Your task to perform on an android device: Search for Italian restaurants on Maps Image 0: 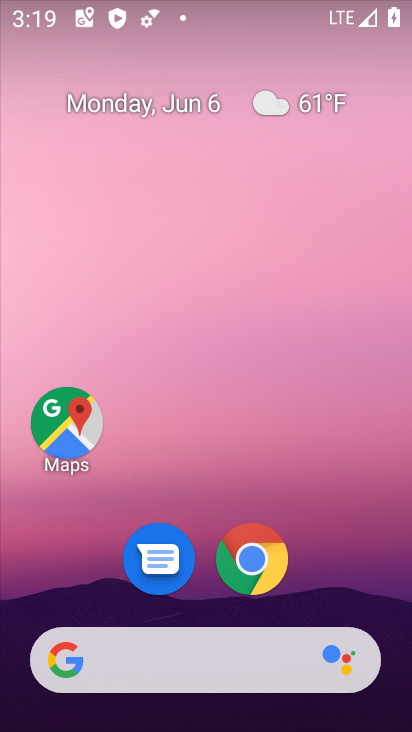
Step 0: click (52, 436)
Your task to perform on an android device: Search for Italian restaurants on Maps Image 1: 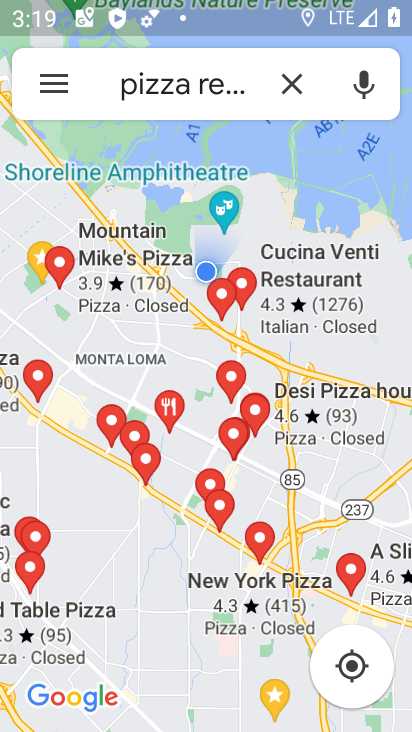
Step 1: click (358, 87)
Your task to perform on an android device: Search for Italian restaurants on Maps Image 2: 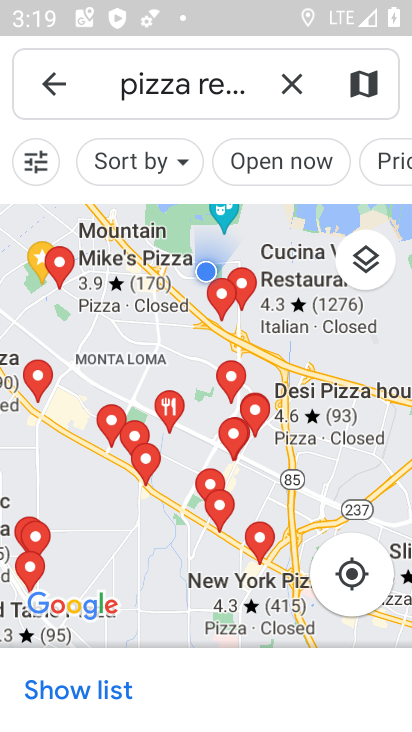
Step 2: click (298, 84)
Your task to perform on an android device: Search for Italian restaurants on Maps Image 3: 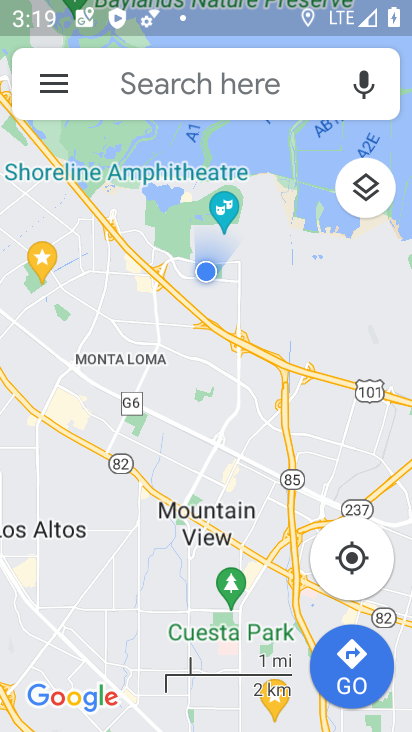
Step 3: click (262, 82)
Your task to perform on an android device: Search for Italian restaurants on Maps Image 4: 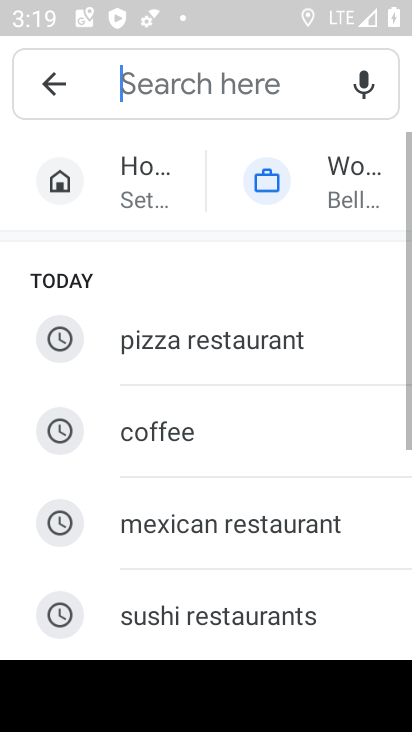
Step 4: drag from (194, 591) to (132, 42)
Your task to perform on an android device: Search for Italian restaurants on Maps Image 5: 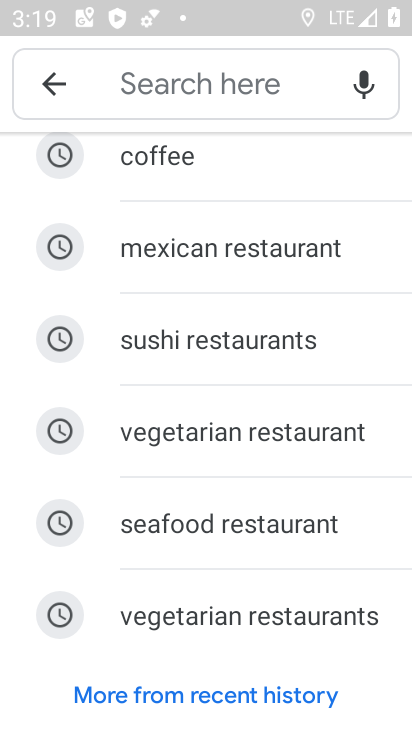
Step 5: click (190, 110)
Your task to perform on an android device: Search for Italian restaurants on Maps Image 6: 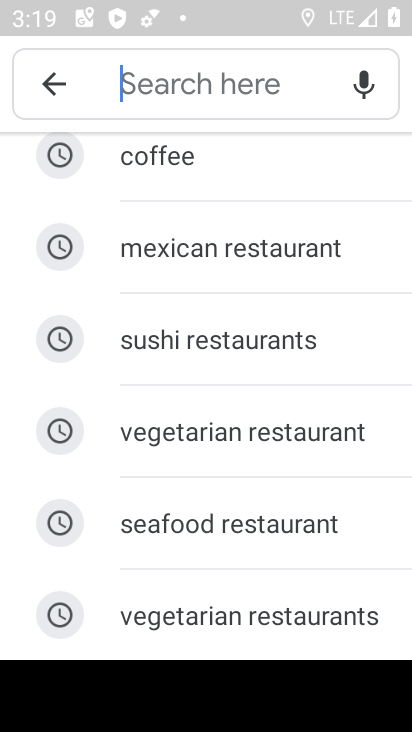
Step 6: type "italian"
Your task to perform on an android device: Search for Italian restaurants on Maps Image 7: 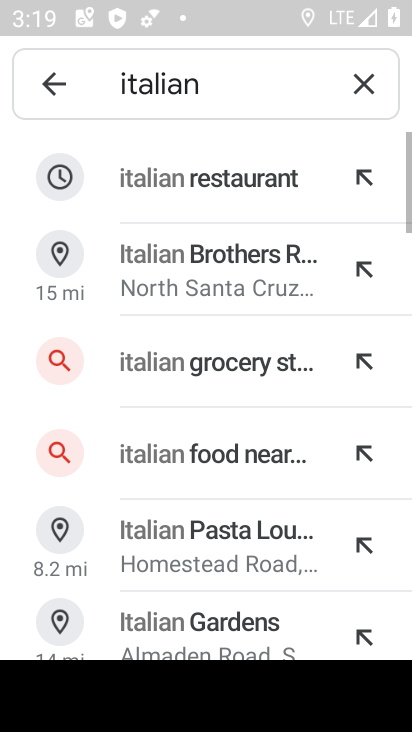
Step 7: click (220, 180)
Your task to perform on an android device: Search for Italian restaurants on Maps Image 8: 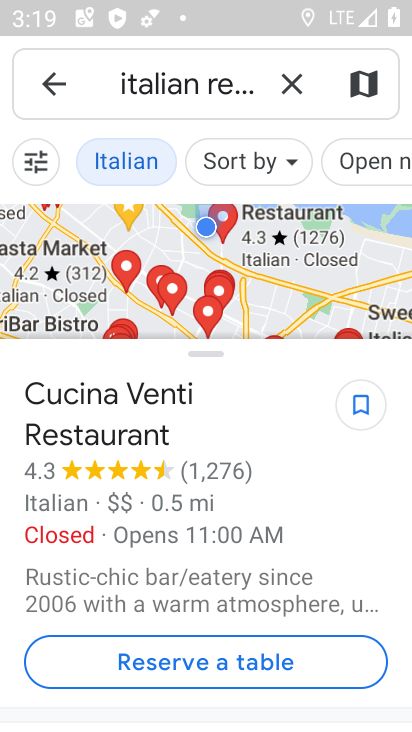
Step 8: task complete